Your task to perform on an android device: open the mobile data screen to see how much data has been used Image 0: 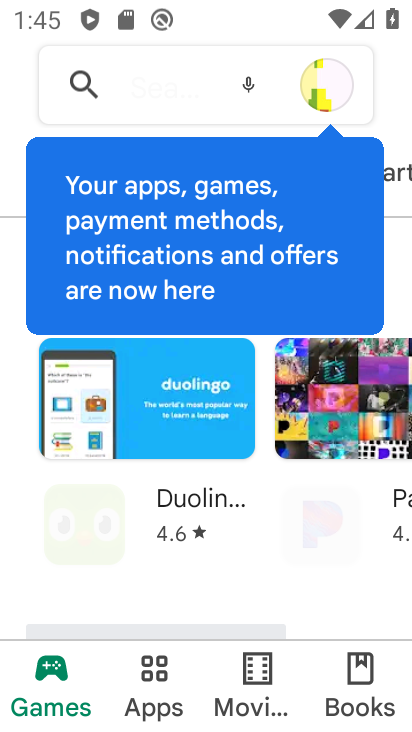
Step 0: press back button
Your task to perform on an android device: open the mobile data screen to see how much data has been used Image 1: 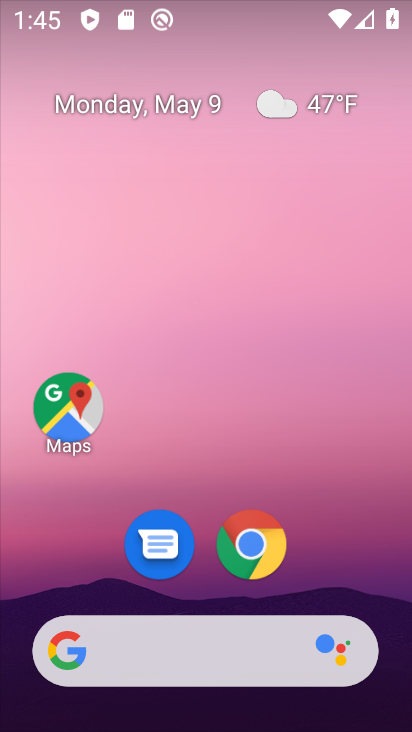
Step 1: drag from (159, 602) to (220, 288)
Your task to perform on an android device: open the mobile data screen to see how much data has been used Image 2: 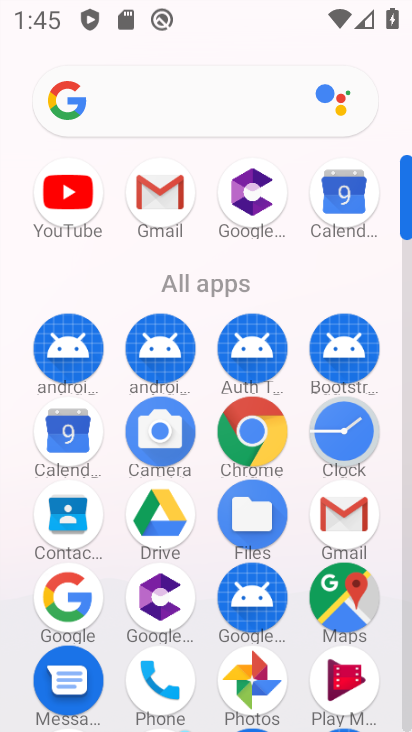
Step 2: drag from (241, 563) to (278, 343)
Your task to perform on an android device: open the mobile data screen to see how much data has been used Image 3: 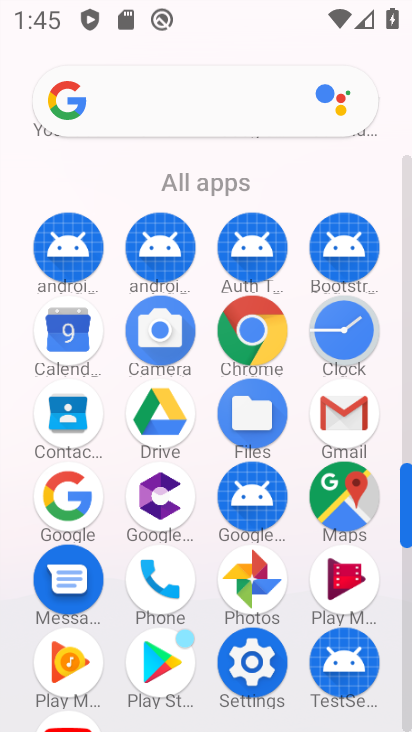
Step 3: click (260, 673)
Your task to perform on an android device: open the mobile data screen to see how much data has been used Image 4: 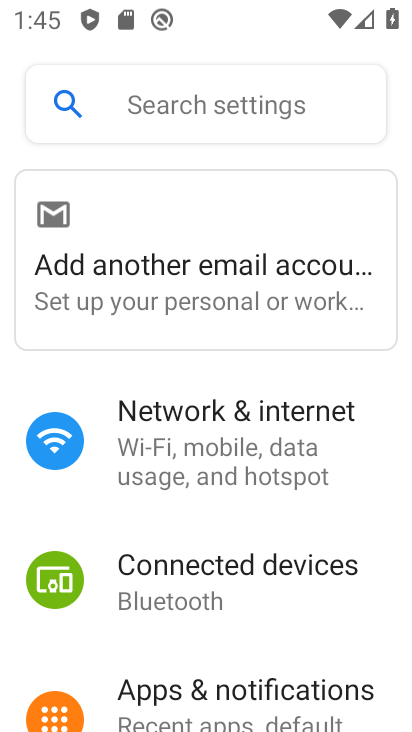
Step 4: click (264, 456)
Your task to perform on an android device: open the mobile data screen to see how much data has been used Image 5: 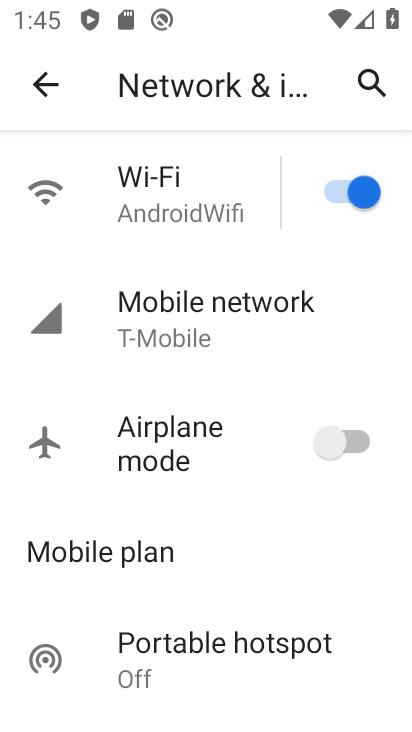
Step 5: click (248, 330)
Your task to perform on an android device: open the mobile data screen to see how much data has been used Image 6: 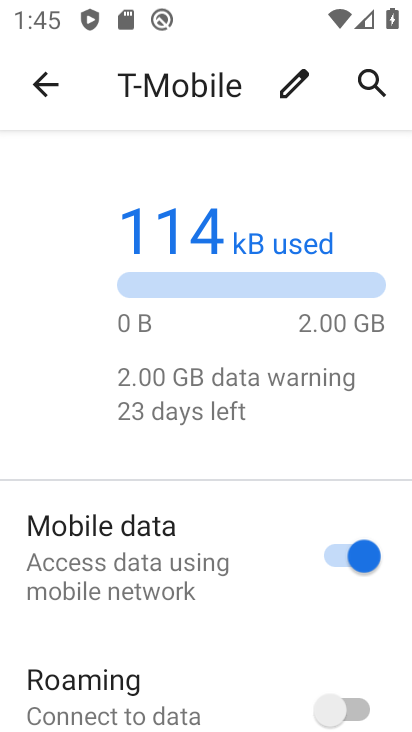
Step 6: drag from (239, 673) to (290, 424)
Your task to perform on an android device: open the mobile data screen to see how much data has been used Image 7: 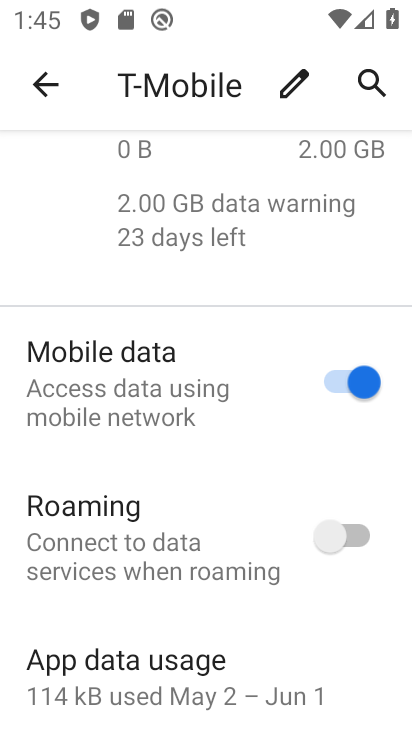
Step 7: click (189, 680)
Your task to perform on an android device: open the mobile data screen to see how much data has been used Image 8: 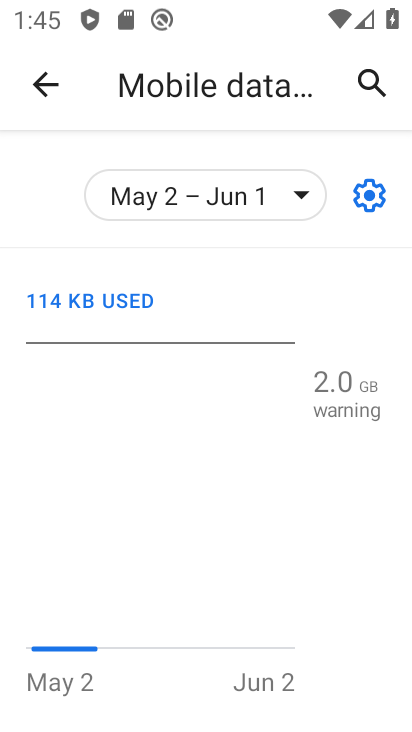
Step 8: task complete